Your task to perform on an android device: toggle javascript in the chrome app Image 0: 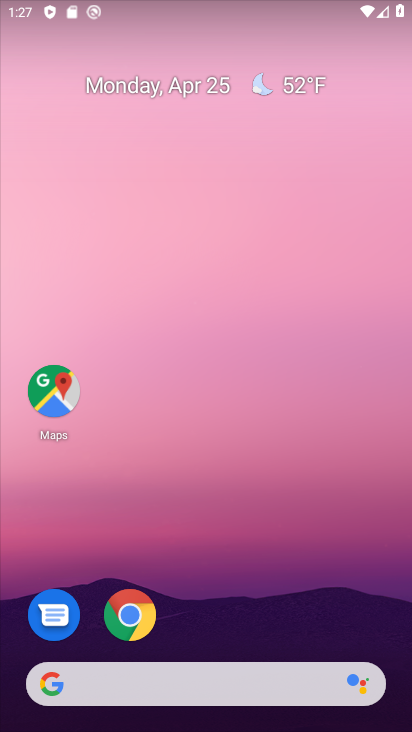
Step 0: click (127, 614)
Your task to perform on an android device: toggle javascript in the chrome app Image 1: 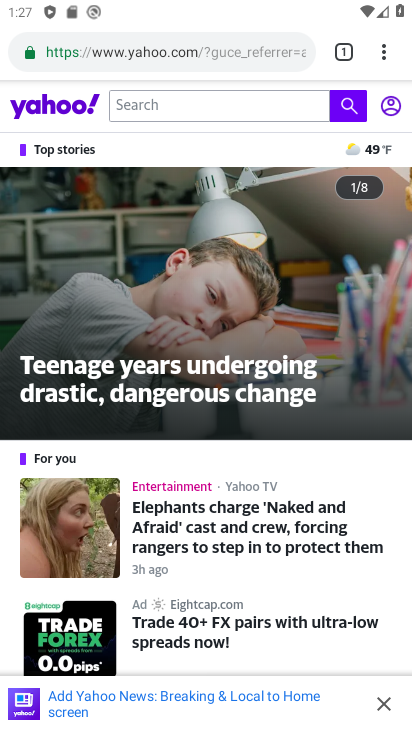
Step 1: click (383, 53)
Your task to perform on an android device: toggle javascript in the chrome app Image 2: 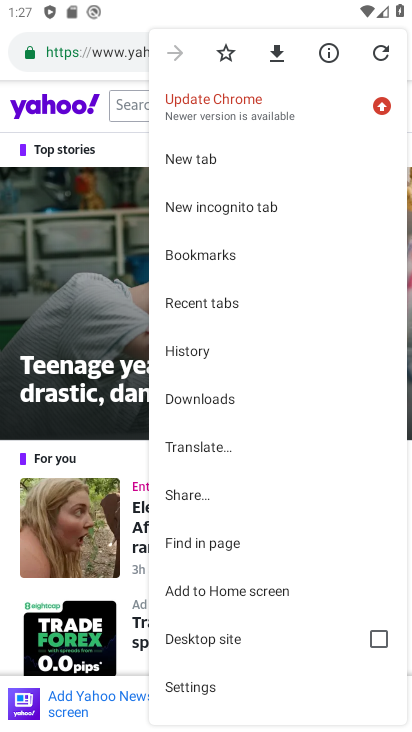
Step 2: click (204, 691)
Your task to perform on an android device: toggle javascript in the chrome app Image 3: 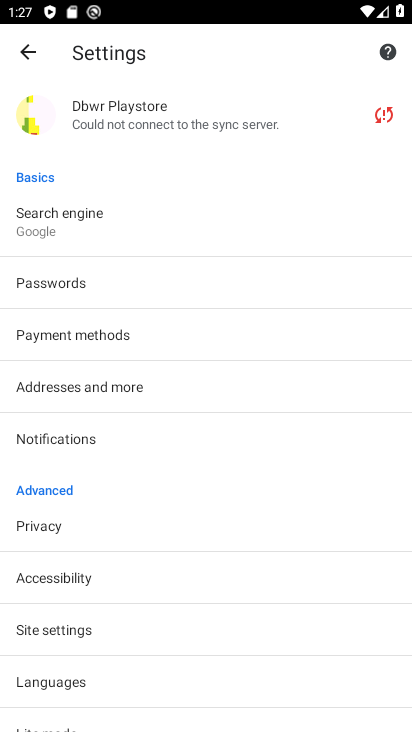
Step 3: click (78, 627)
Your task to perform on an android device: toggle javascript in the chrome app Image 4: 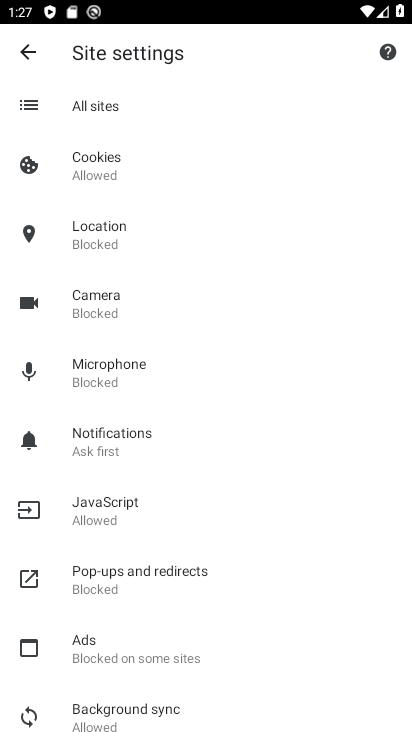
Step 4: click (105, 524)
Your task to perform on an android device: toggle javascript in the chrome app Image 5: 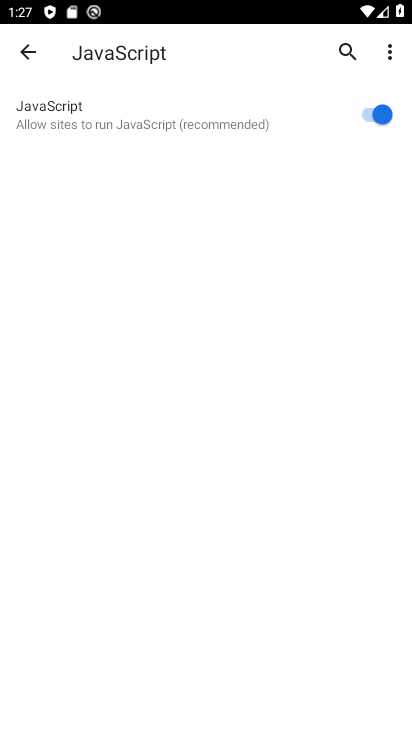
Step 5: click (388, 121)
Your task to perform on an android device: toggle javascript in the chrome app Image 6: 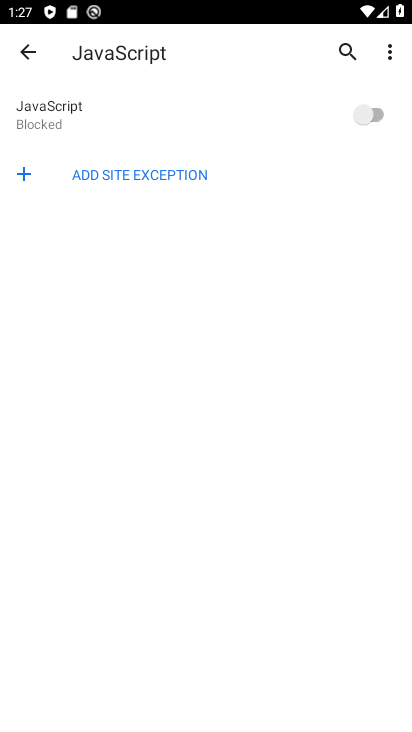
Step 6: task complete